Your task to perform on an android device: Go to notification settings Image 0: 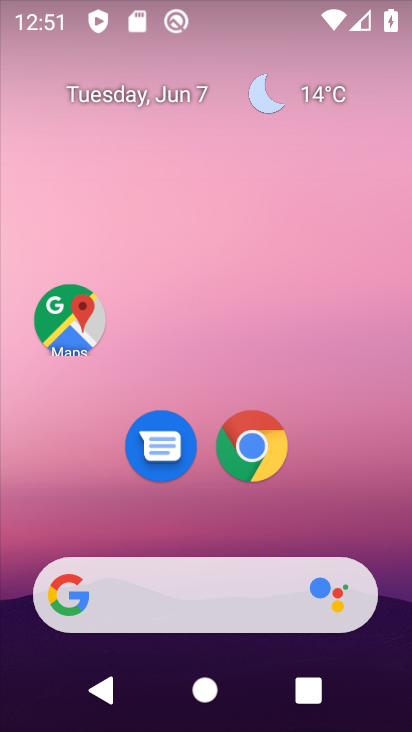
Step 0: drag from (369, 521) to (278, 41)
Your task to perform on an android device: Go to notification settings Image 1: 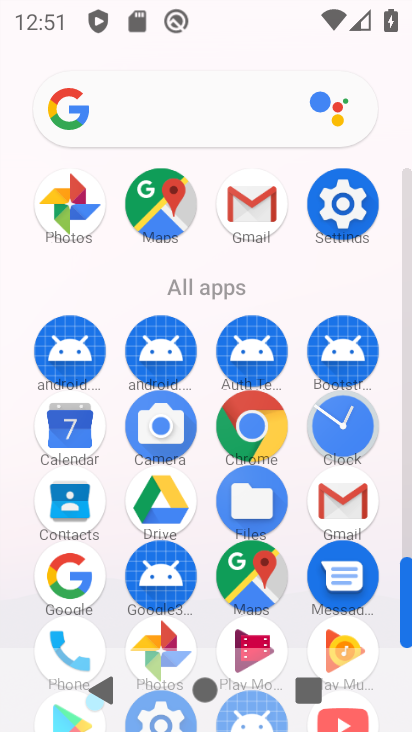
Step 1: drag from (21, 614) to (31, 274)
Your task to perform on an android device: Go to notification settings Image 2: 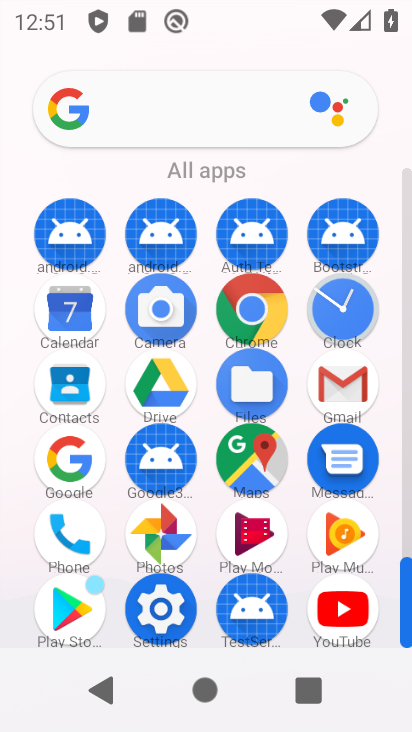
Step 2: click (160, 612)
Your task to perform on an android device: Go to notification settings Image 3: 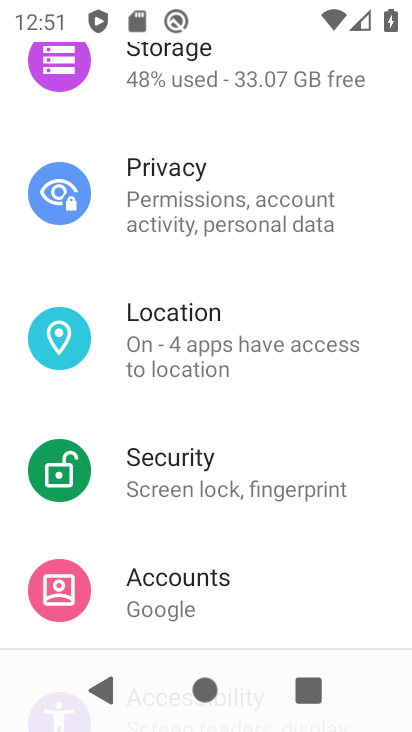
Step 3: drag from (252, 548) to (261, 130)
Your task to perform on an android device: Go to notification settings Image 4: 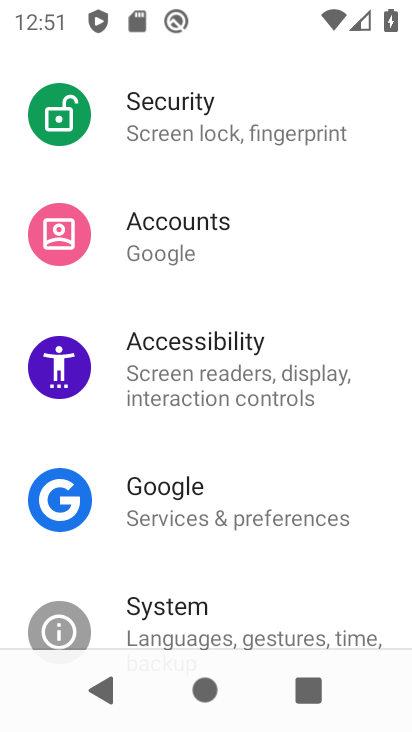
Step 4: drag from (277, 518) to (291, 155)
Your task to perform on an android device: Go to notification settings Image 5: 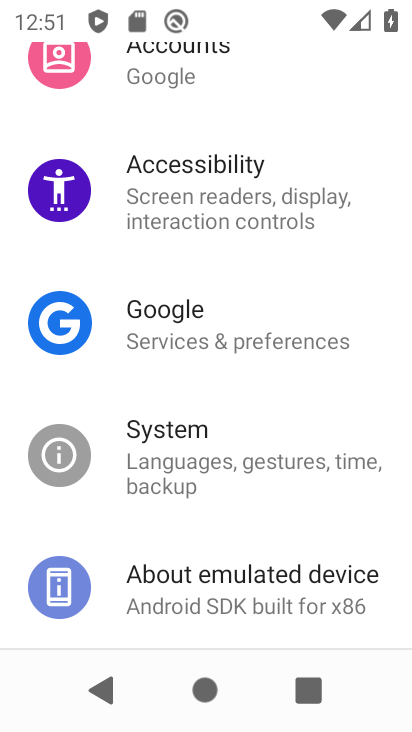
Step 5: drag from (252, 131) to (234, 539)
Your task to perform on an android device: Go to notification settings Image 6: 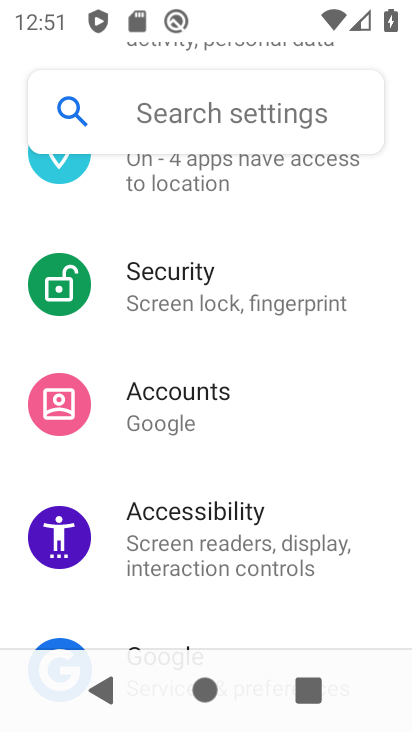
Step 6: drag from (276, 180) to (275, 530)
Your task to perform on an android device: Go to notification settings Image 7: 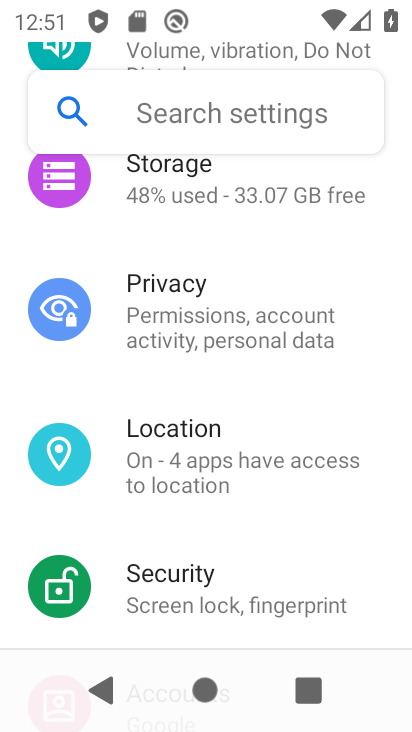
Step 7: drag from (282, 204) to (282, 639)
Your task to perform on an android device: Go to notification settings Image 8: 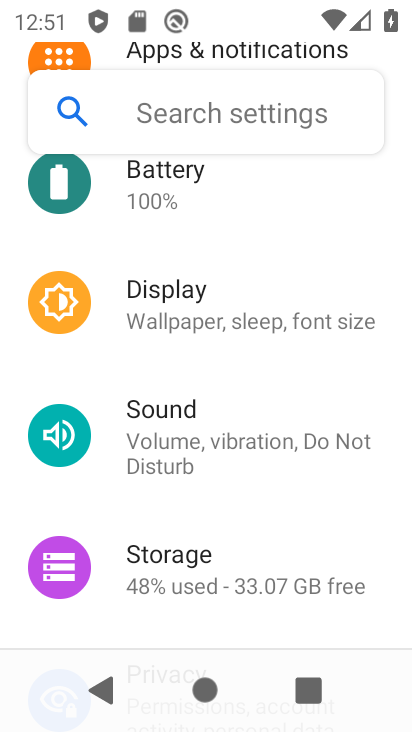
Step 8: drag from (289, 233) to (289, 599)
Your task to perform on an android device: Go to notification settings Image 9: 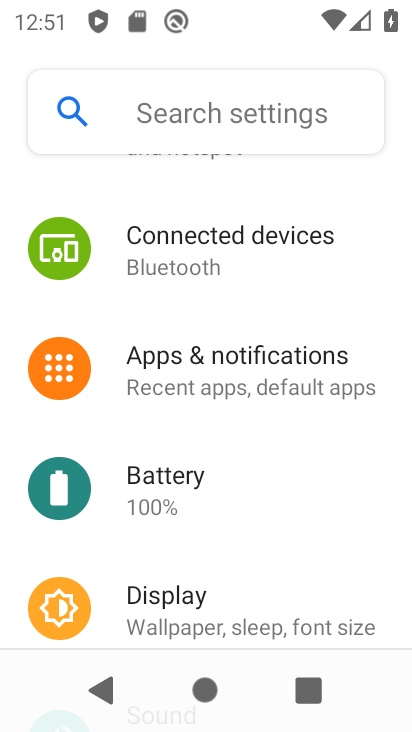
Step 9: click (245, 358)
Your task to perform on an android device: Go to notification settings Image 10: 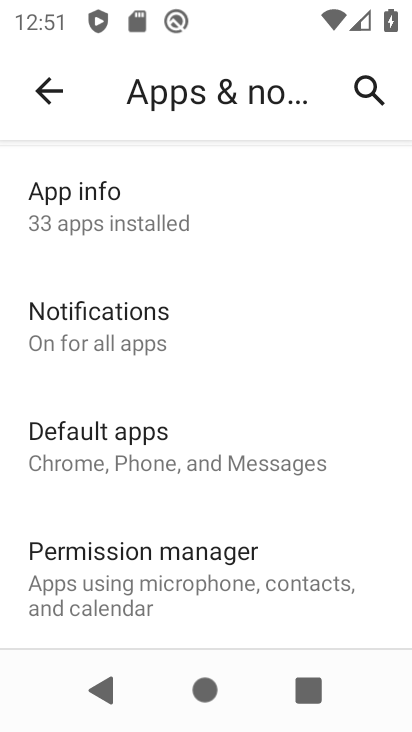
Step 10: click (188, 329)
Your task to perform on an android device: Go to notification settings Image 11: 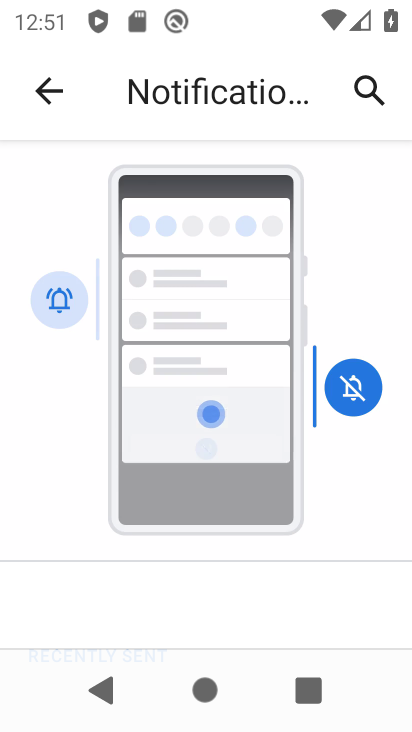
Step 11: drag from (143, 565) to (192, 190)
Your task to perform on an android device: Go to notification settings Image 12: 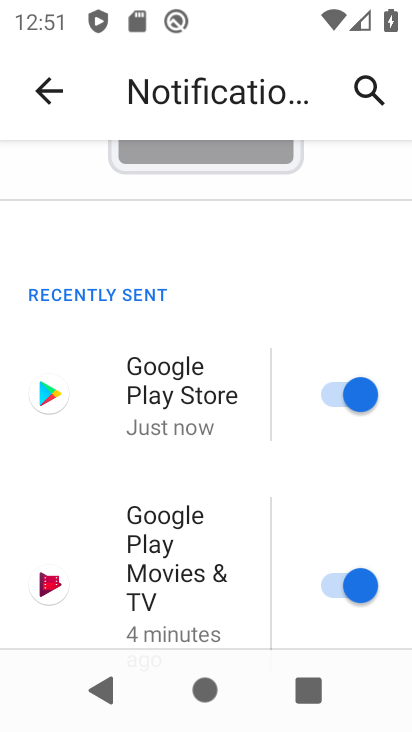
Step 12: drag from (139, 530) to (208, 155)
Your task to perform on an android device: Go to notification settings Image 13: 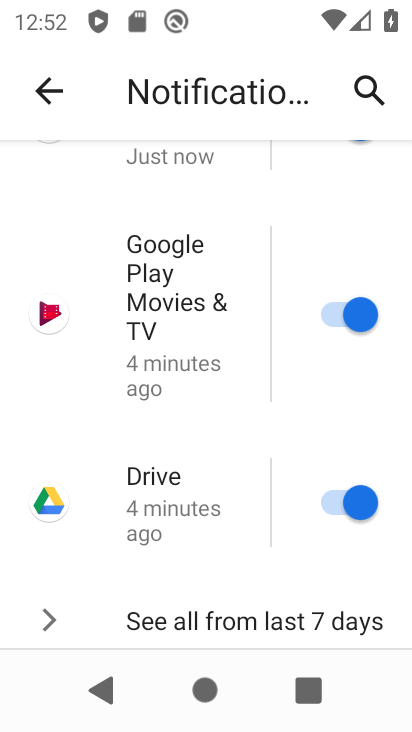
Step 13: drag from (170, 523) to (212, 201)
Your task to perform on an android device: Go to notification settings Image 14: 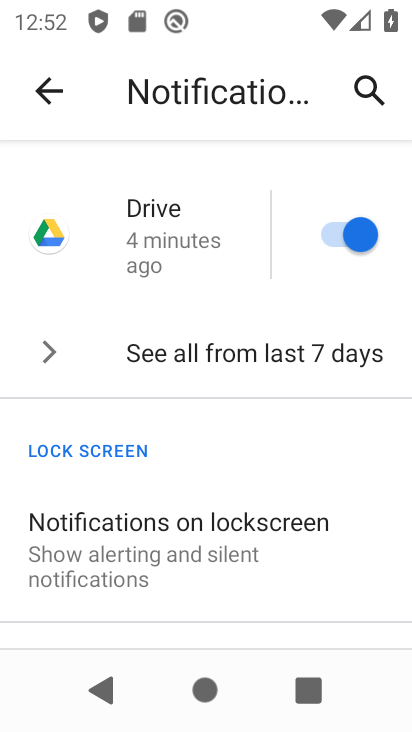
Step 14: drag from (177, 524) to (228, 142)
Your task to perform on an android device: Go to notification settings Image 15: 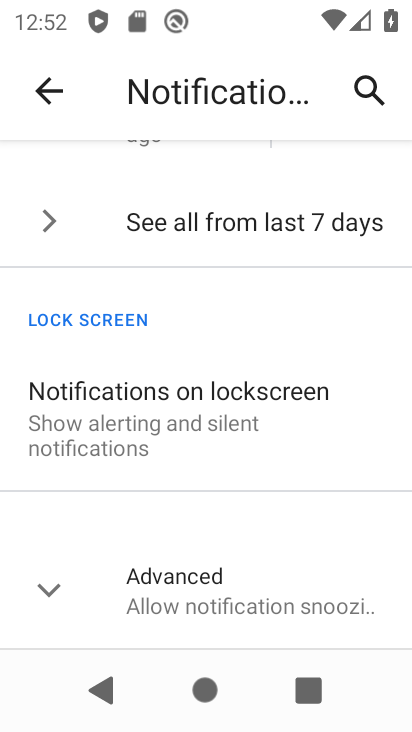
Step 15: click (65, 571)
Your task to perform on an android device: Go to notification settings Image 16: 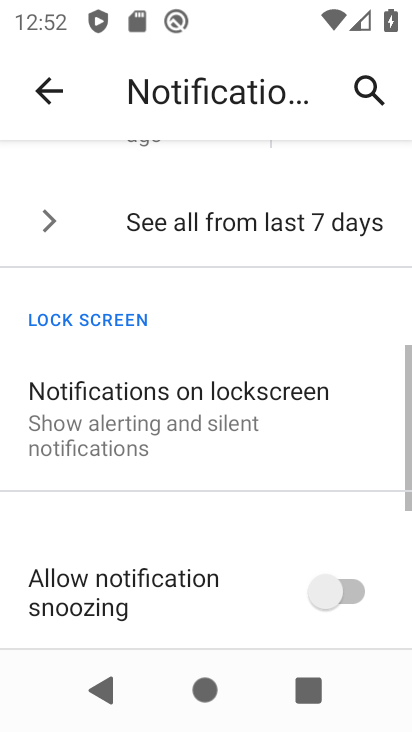
Step 16: task complete